Your task to perform on an android device: open a bookmark in the chrome app Image 0: 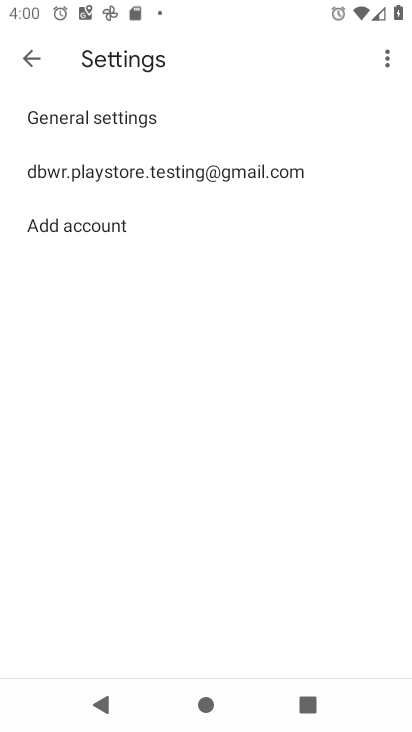
Step 0: press home button
Your task to perform on an android device: open a bookmark in the chrome app Image 1: 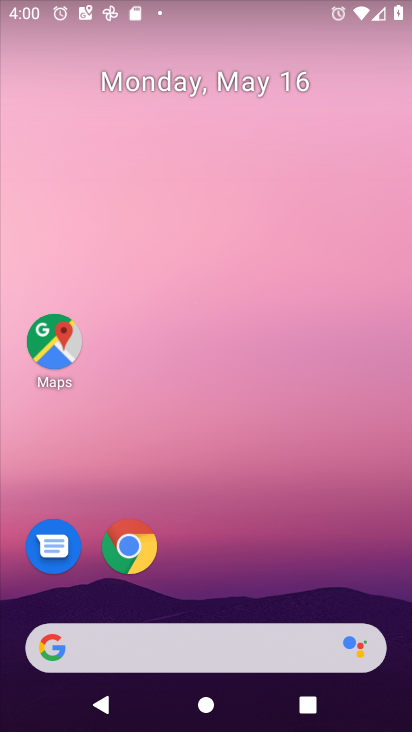
Step 1: drag from (356, 495) to (363, 109)
Your task to perform on an android device: open a bookmark in the chrome app Image 2: 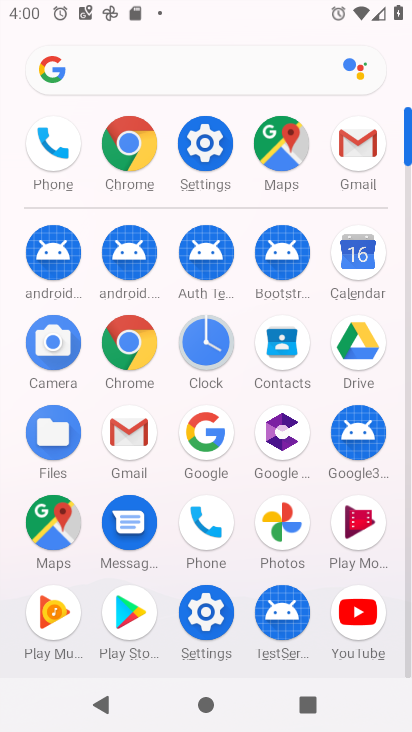
Step 2: click (139, 360)
Your task to perform on an android device: open a bookmark in the chrome app Image 3: 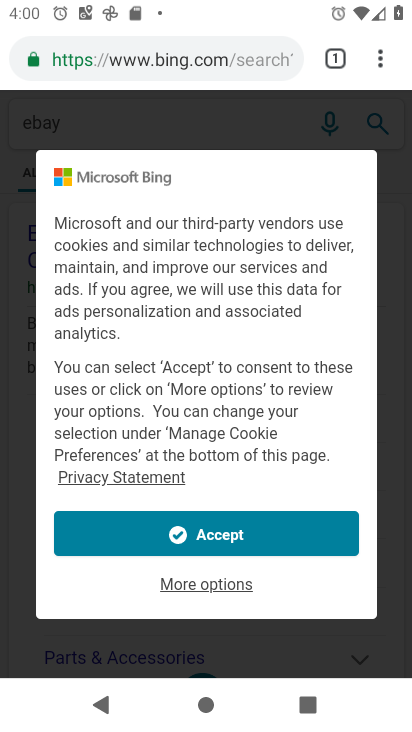
Step 3: click (380, 65)
Your task to perform on an android device: open a bookmark in the chrome app Image 4: 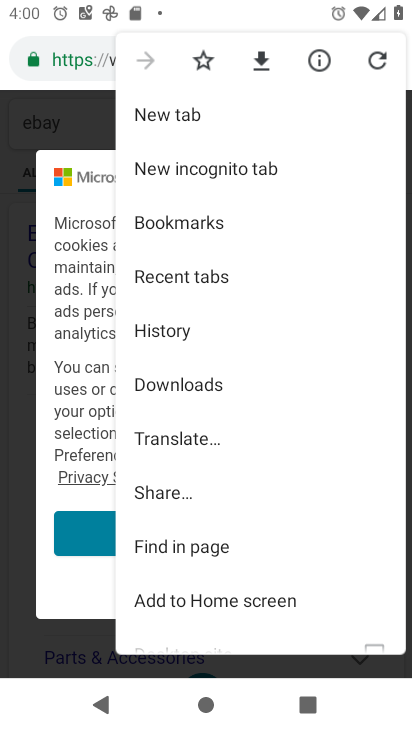
Step 4: drag from (337, 514) to (336, 408)
Your task to perform on an android device: open a bookmark in the chrome app Image 5: 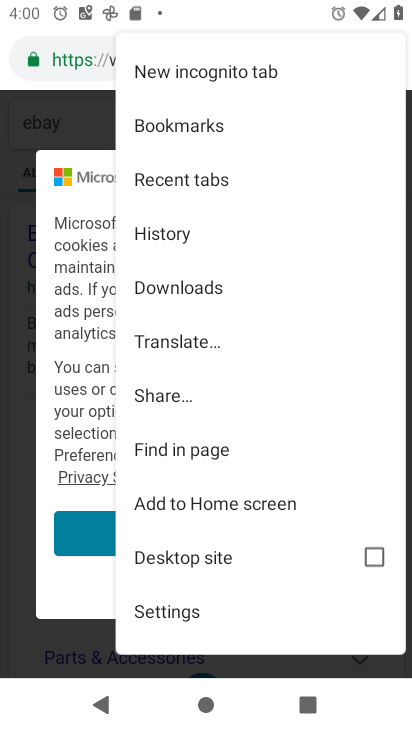
Step 5: drag from (311, 502) to (314, 362)
Your task to perform on an android device: open a bookmark in the chrome app Image 6: 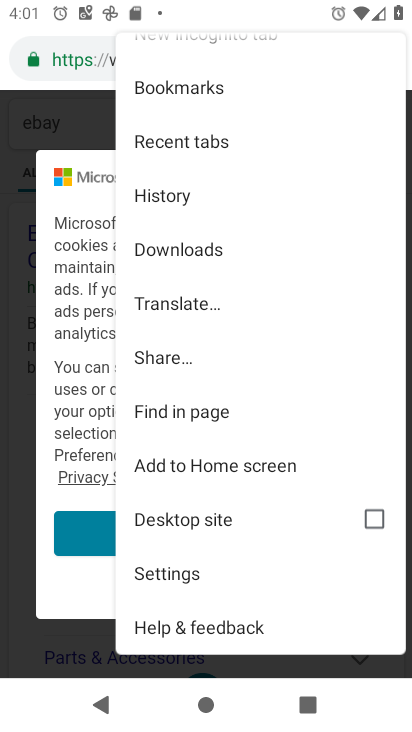
Step 6: drag from (321, 285) to (322, 413)
Your task to perform on an android device: open a bookmark in the chrome app Image 7: 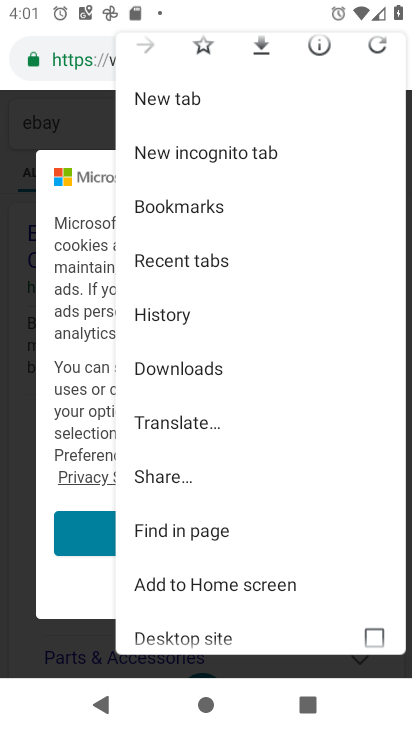
Step 7: drag from (327, 261) to (329, 384)
Your task to perform on an android device: open a bookmark in the chrome app Image 8: 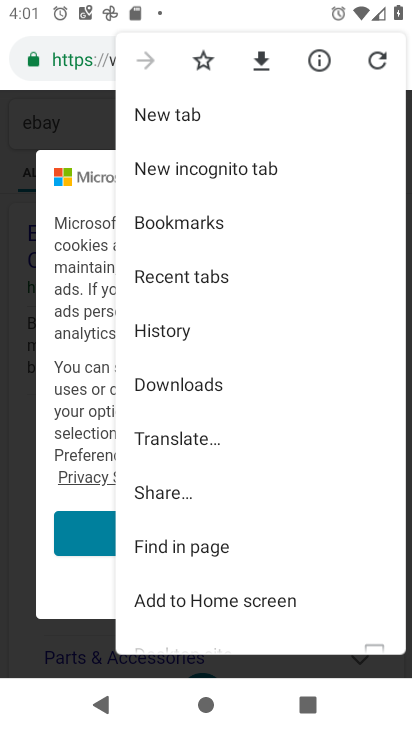
Step 8: click (229, 224)
Your task to perform on an android device: open a bookmark in the chrome app Image 9: 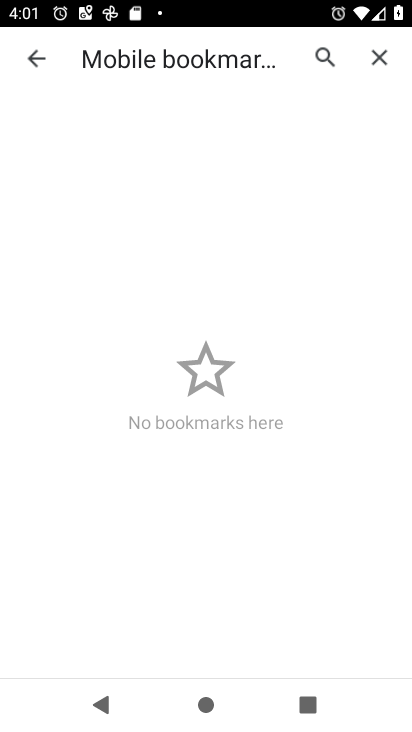
Step 9: task complete